Your task to perform on an android device: find which apps use the phone's location Image 0: 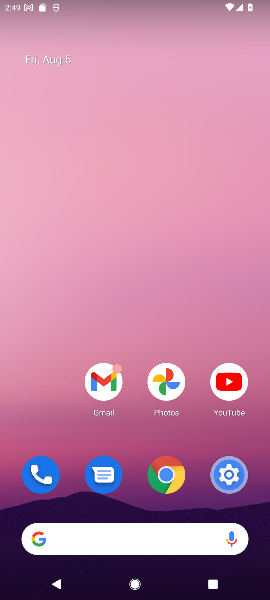
Step 0: click (228, 472)
Your task to perform on an android device: find which apps use the phone's location Image 1: 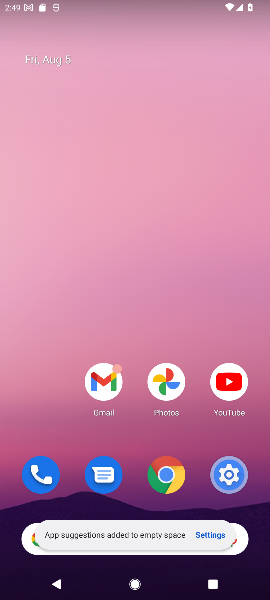
Step 1: click (228, 472)
Your task to perform on an android device: find which apps use the phone's location Image 2: 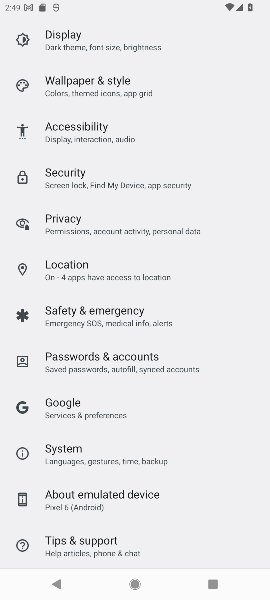
Step 2: click (74, 270)
Your task to perform on an android device: find which apps use the phone's location Image 3: 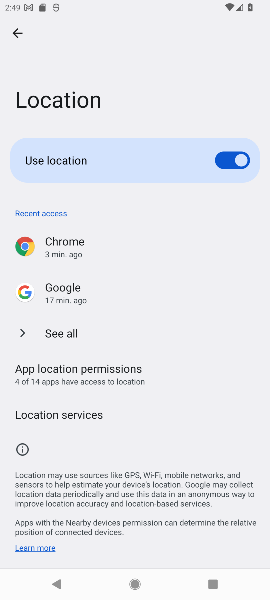
Step 3: drag from (219, 439) to (207, 113)
Your task to perform on an android device: find which apps use the phone's location Image 4: 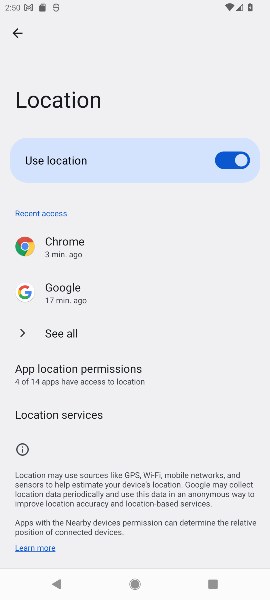
Step 4: click (81, 380)
Your task to perform on an android device: find which apps use the phone's location Image 5: 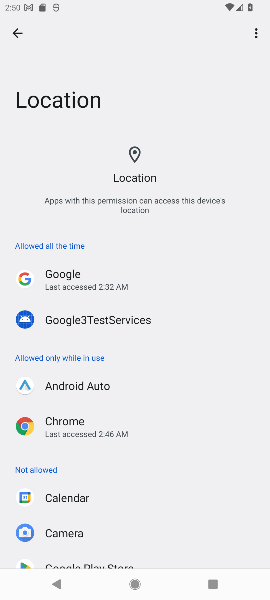
Step 5: task complete